Your task to perform on an android device: Open Google Maps and go to "Timeline" Image 0: 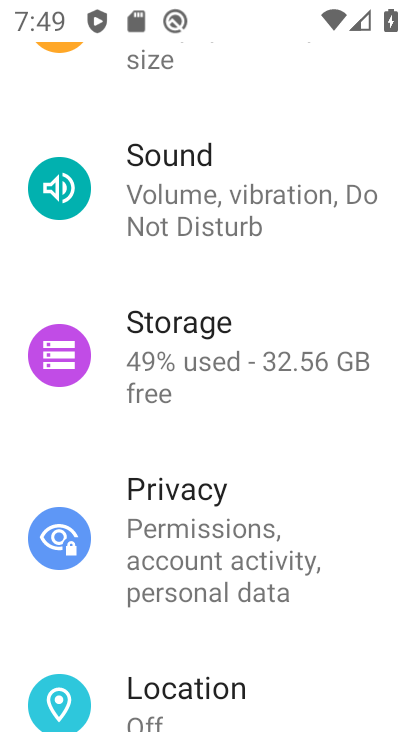
Step 0: press home button
Your task to perform on an android device: Open Google Maps and go to "Timeline" Image 1: 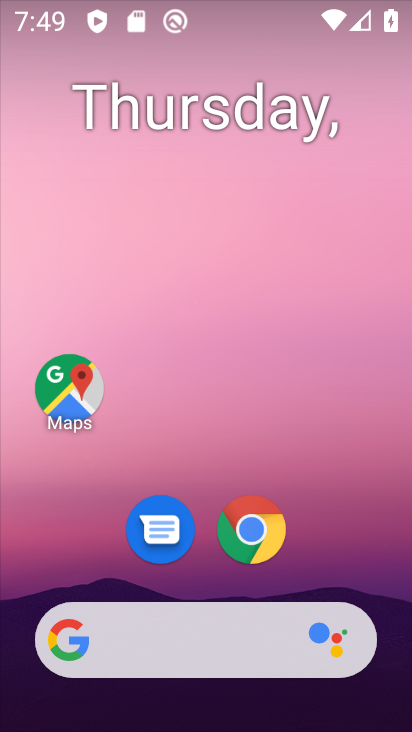
Step 1: click (71, 398)
Your task to perform on an android device: Open Google Maps and go to "Timeline" Image 2: 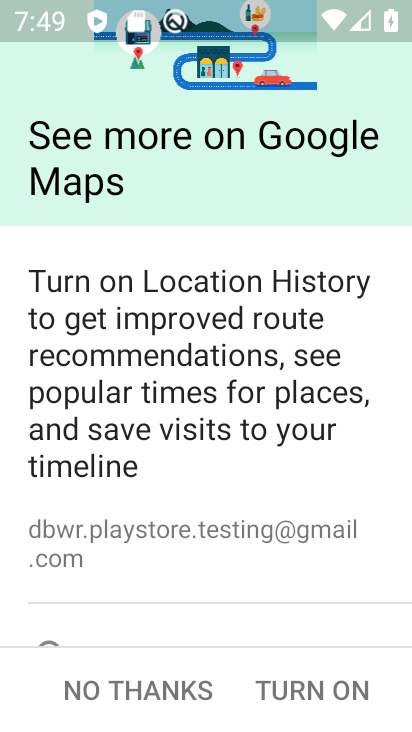
Step 2: click (335, 688)
Your task to perform on an android device: Open Google Maps and go to "Timeline" Image 3: 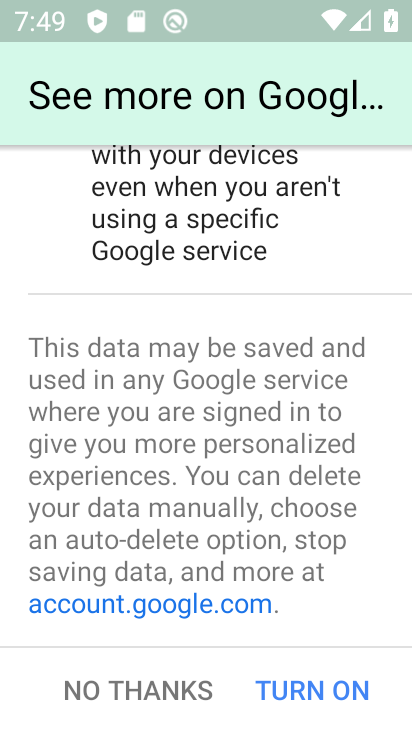
Step 3: click (335, 688)
Your task to perform on an android device: Open Google Maps and go to "Timeline" Image 4: 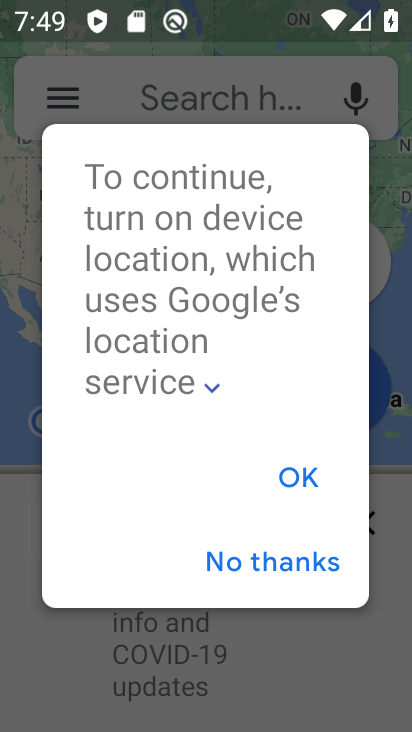
Step 4: click (298, 464)
Your task to perform on an android device: Open Google Maps and go to "Timeline" Image 5: 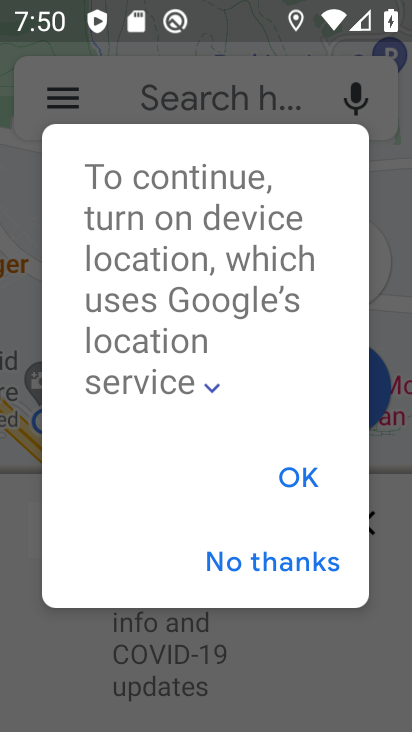
Step 5: click (292, 487)
Your task to perform on an android device: Open Google Maps and go to "Timeline" Image 6: 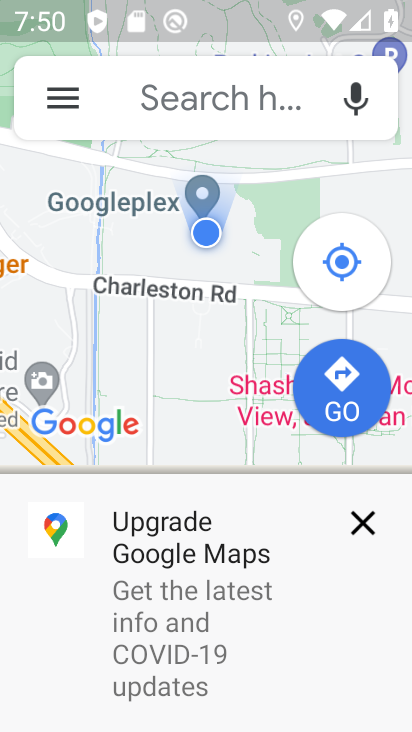
Step 6: click (64, 105)
Your task to perform on an android device: Open Google Maps and go to "Timeline" Image 7: 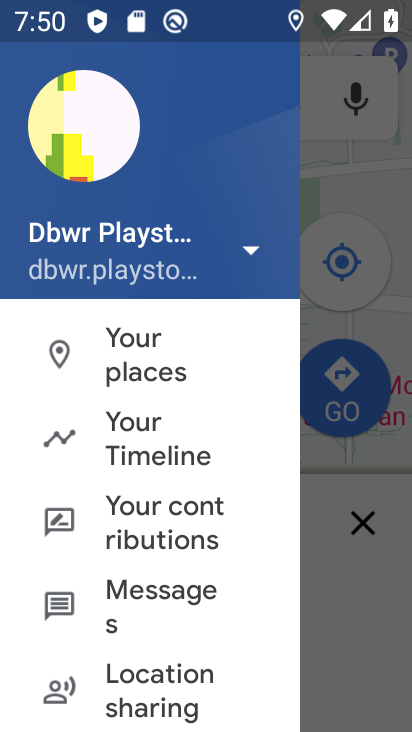
Step 7: click (124, 444)
Your task to perform on an android device: Open Google Maps and go to "Timeline" Image 8: 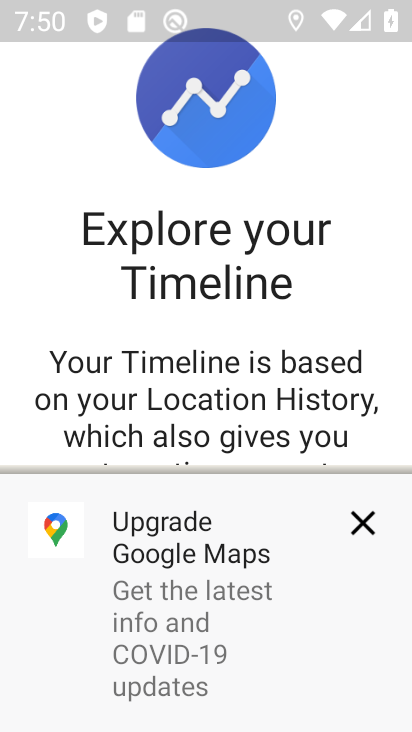
Step 8: click (355, 511)
Your task to perform on an android device: Open Google Maps and go to "Timeline" Image 9: 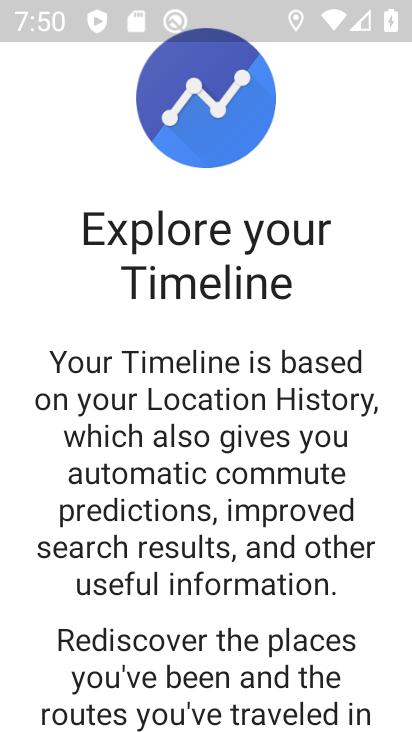
Step 9: drag from (246, 616) to (271, 92)
Your task to perform on an android device: Open Google Maps and go to "Timeline" Image 10: 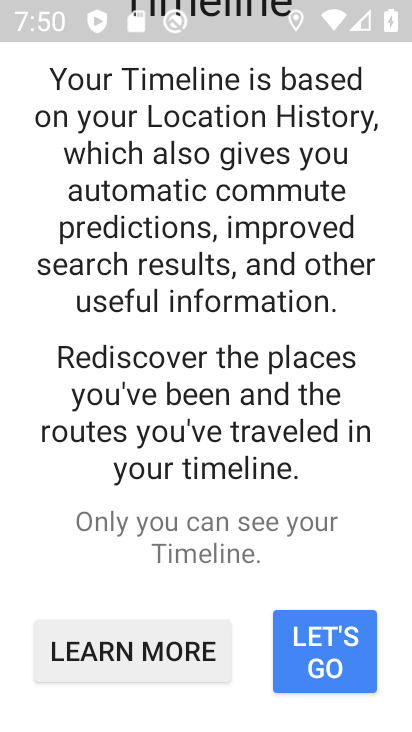
Step 10: click (345, 633)
Your task to perform on an android device: Open Google Maps and go to "Timeline" Image 11: 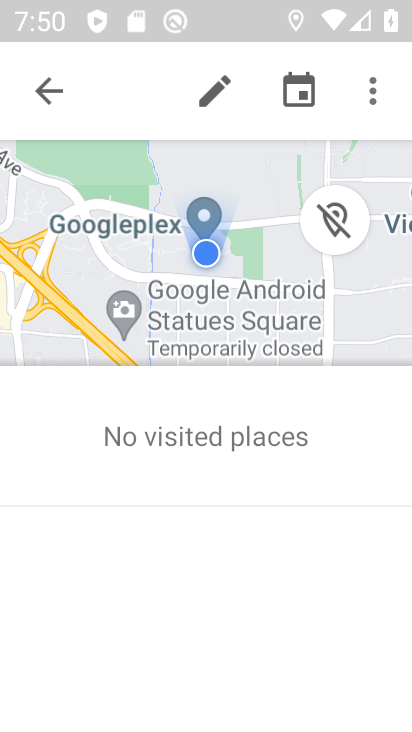
Step 11: task complete